Your task to perform on an android device: allow notifications from all sites in the chrome app Image 0: 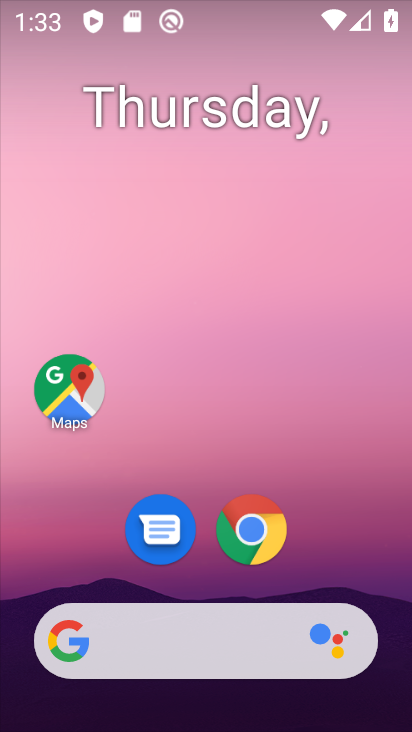
Step 0: click (243, 527)
Your task to perform on an android device: allow notifications from all sites in the chrome app Image 1: 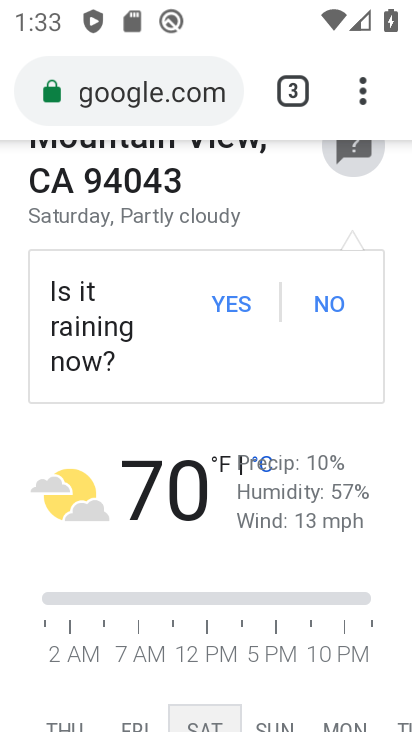
Step 1: drag from (360, 88) to (191, 536)
Your task to perform on an android device: allow notifications from all sites in the chrome app Image 2: 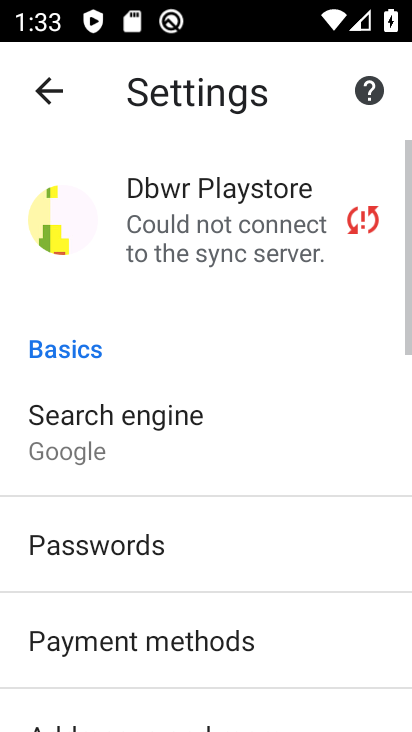
Step 2: drag from (195, 689) to (256, 240)
Your task to perform on an android device: allow notifications from all sites in the chrome app Image 3: 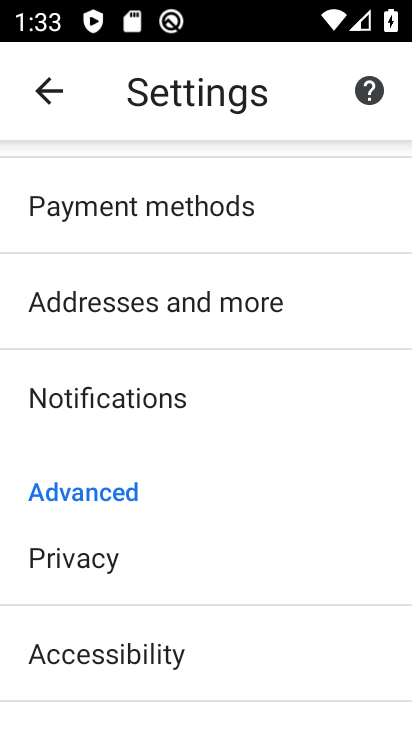
Step 3: drag from (212, 667) to (240, 321)
Your task to perform on an android device: allow notifications from all sites in the chrome app Image 4: 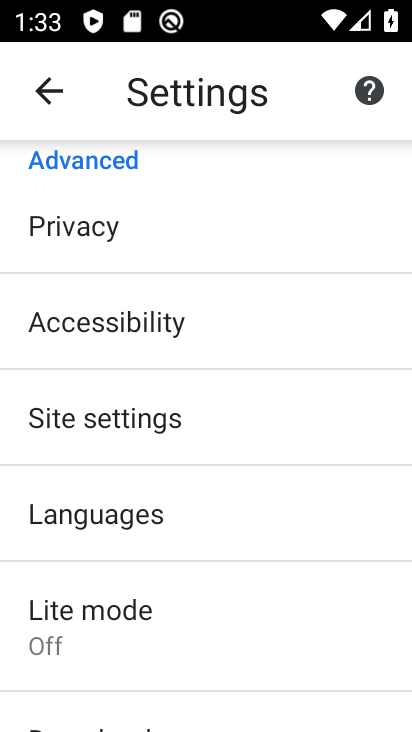
Step 4: click (104, 419)
Your task to perform on an android device: allow notifications from all sites in the chrome app Image 5: 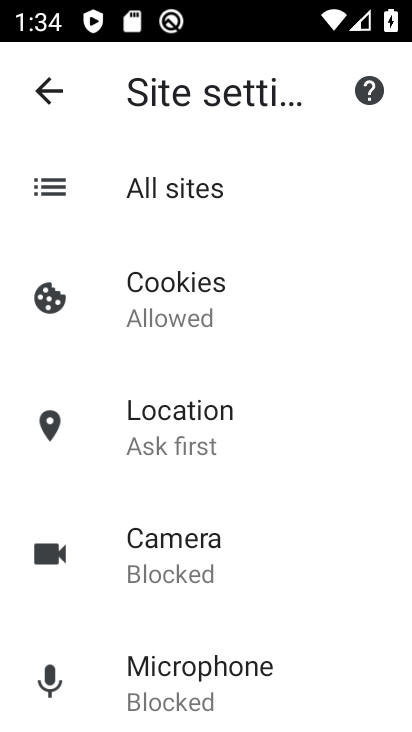
Step 5: drag from (165, 630) to (189, 318)
Your task to perform on an android device: allow notifications from all sites in the chrome app Image 6: 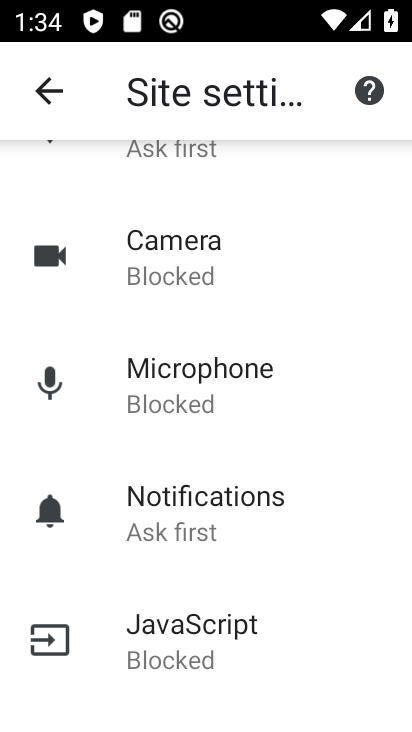
Step 6: click (178, 502)
Your task to perform on an android device: allow notifications from all sites in the chrome app Image 7: 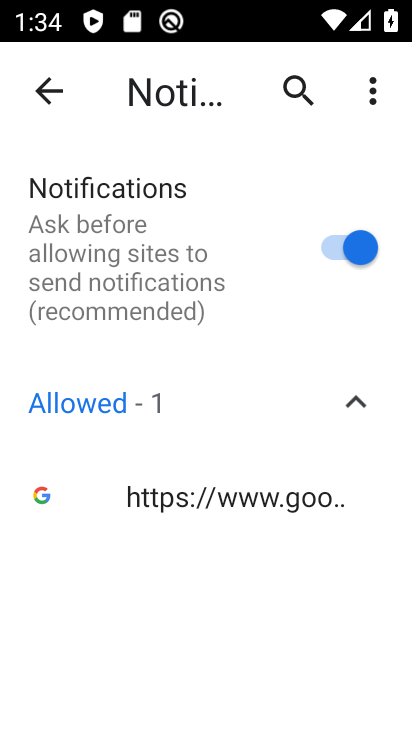
Step 7: task complete